Your task to perform on an android device: What's the weather today? Image 0: 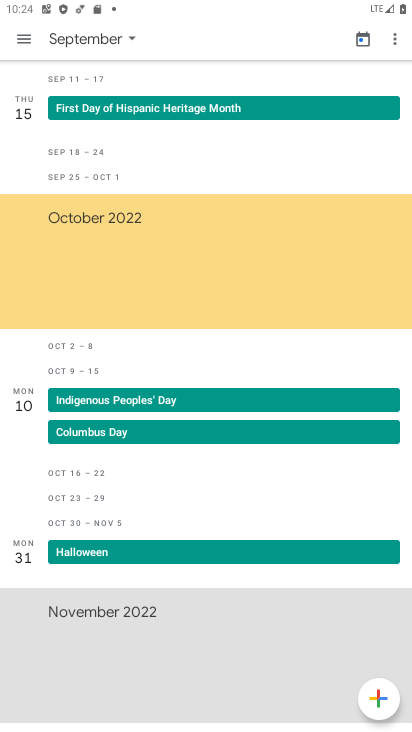
Step 0: press home button
Your task to perform on an android device: What's the weather today? Image 1: 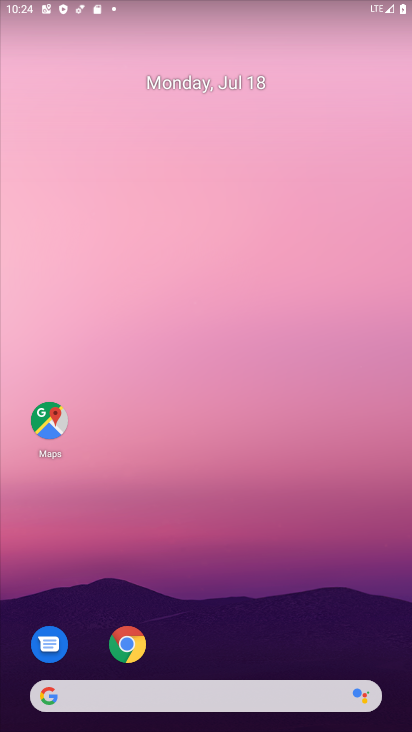
Step 1: click (246, 700)
Your task to perform on an android device: What's the weather today? Image 2: 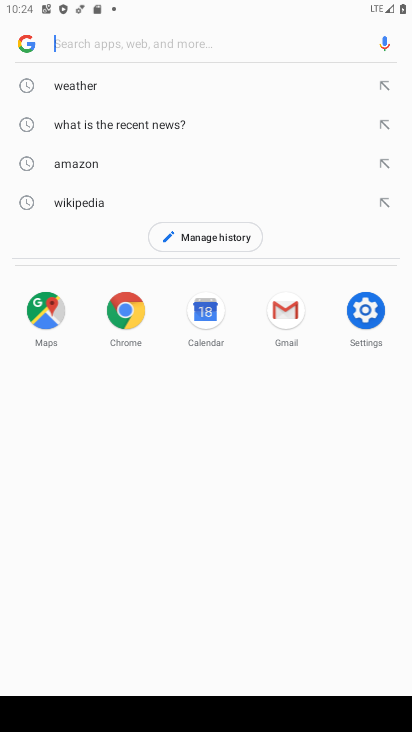
Step 2: click (82, 89)
Your task to perform on an android device: What's the weather today? Image 3: 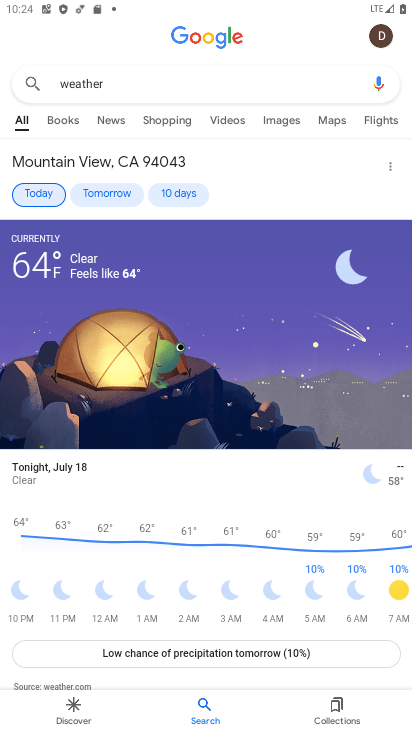
Step 3: task complete